Your task to perform on an android device: Go to network settings Image 0: 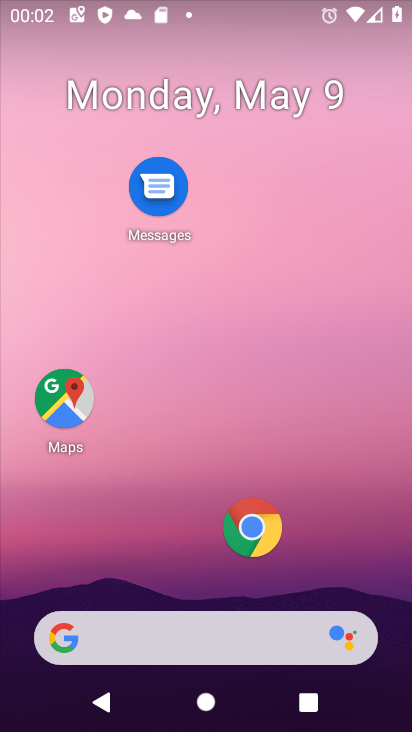
Step 0: drag from (168, 561) to (204, 72)
Your task to perform on an android device: Go to network settings Image 1: 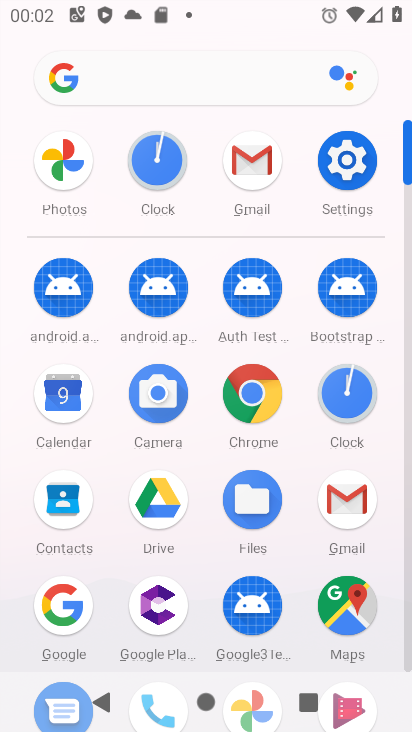
Step 1: click (346, 153)
Your task to perform on an android device: Go to network settings Image 2: 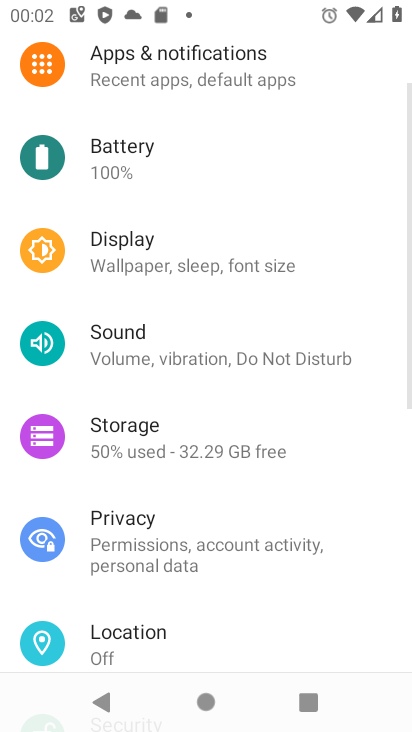
Step 2: drag from (213, 182) to (220, 585)
Your task to perform on an android device: Go to network settings Image 3: 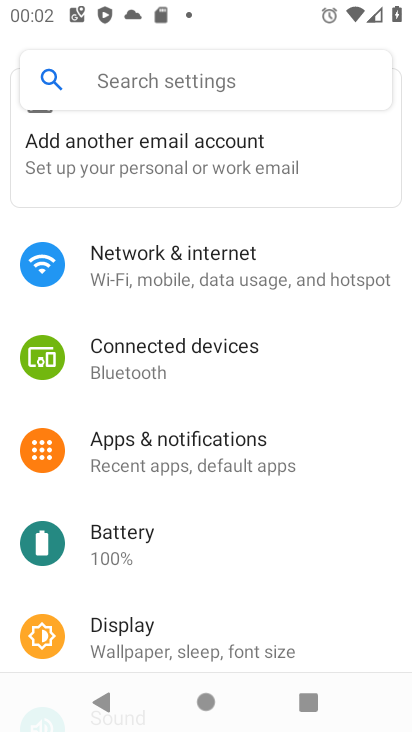
Step 3: click (217, 272)
Your task to perform on an android device: Go to network settings Image 4: 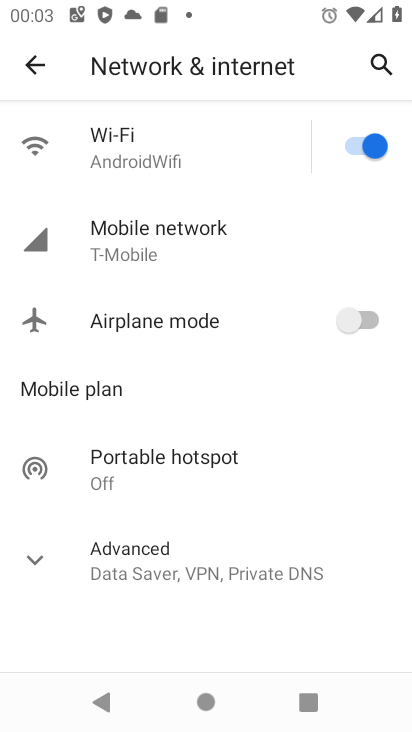
Step 4: drag from (170, 246) to (246, 204)
Your task to perform on an android device: Go to network settings Image 5: 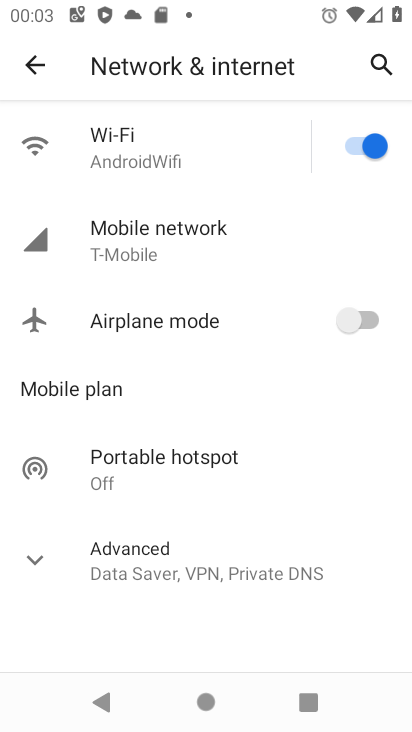
Step 5: click (136, 246)
Your task to perform on an android device: Go to network settings Image 6: 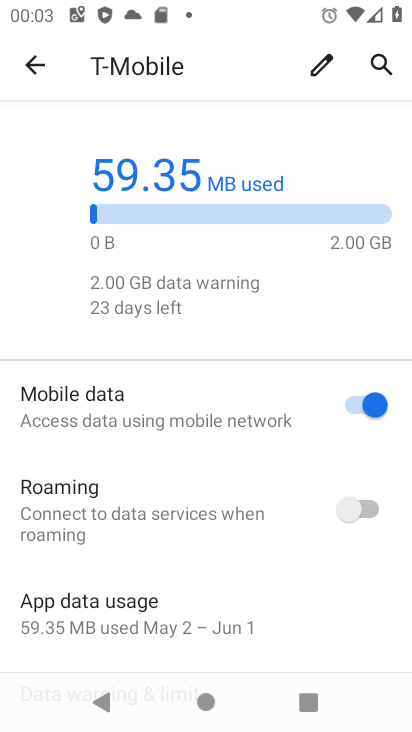
Step 6: task complete